Your task to perform on an android device: Search for Mexican restaurants on Maps Image 0: 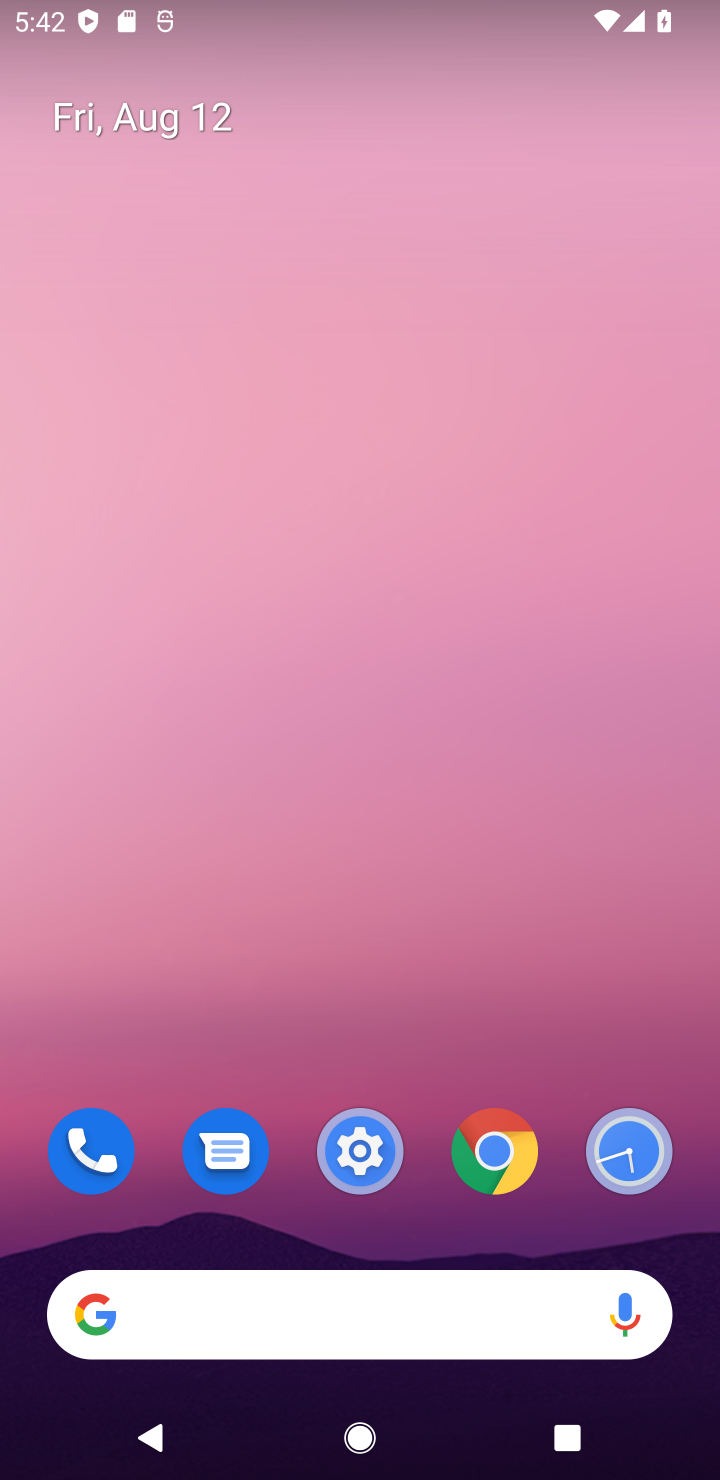
Step 0: drag from (562, 972) to (565, 40)
Your task to perform on an android device: Search for Mexican restaurants on Maps Image 1: 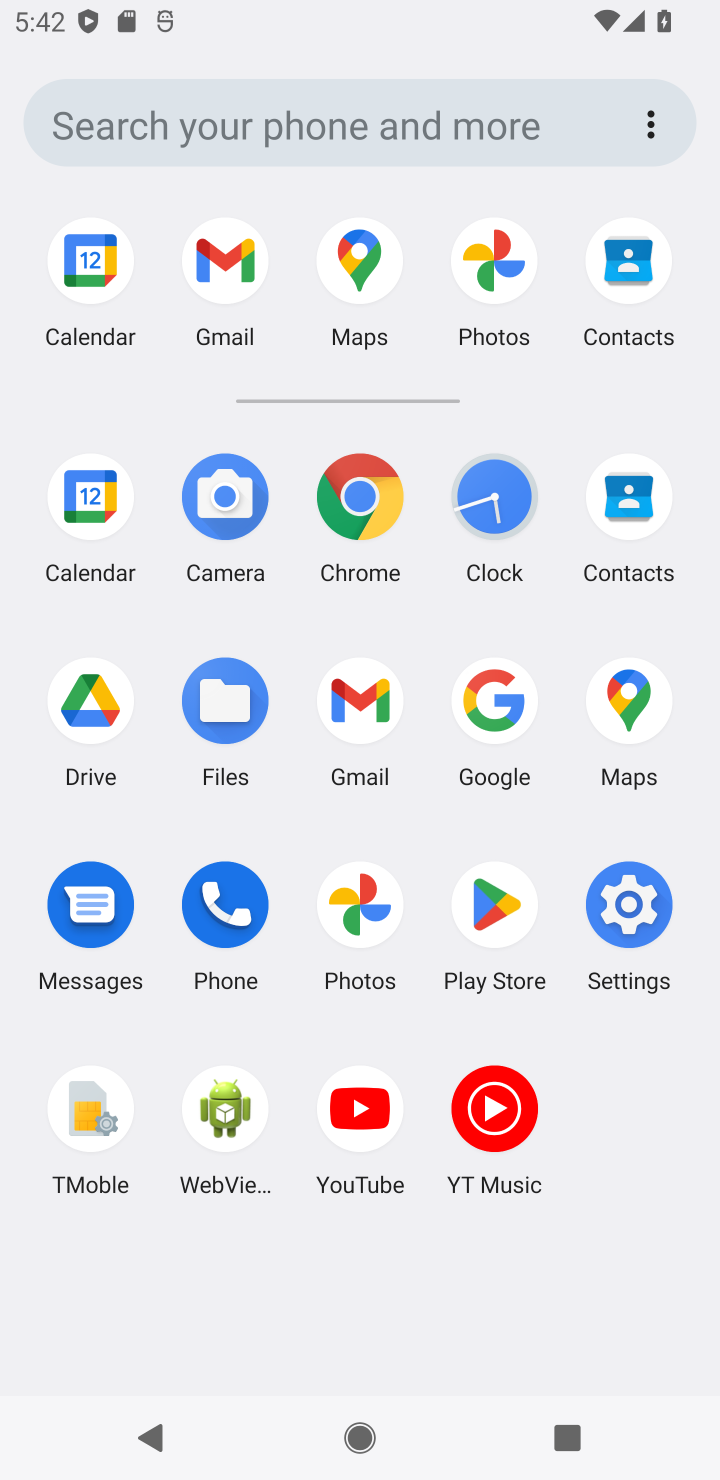
Step 1: click (616, 694)
Your task to perform on an android device: Search for Mexican restaurants on Maps Image 2: 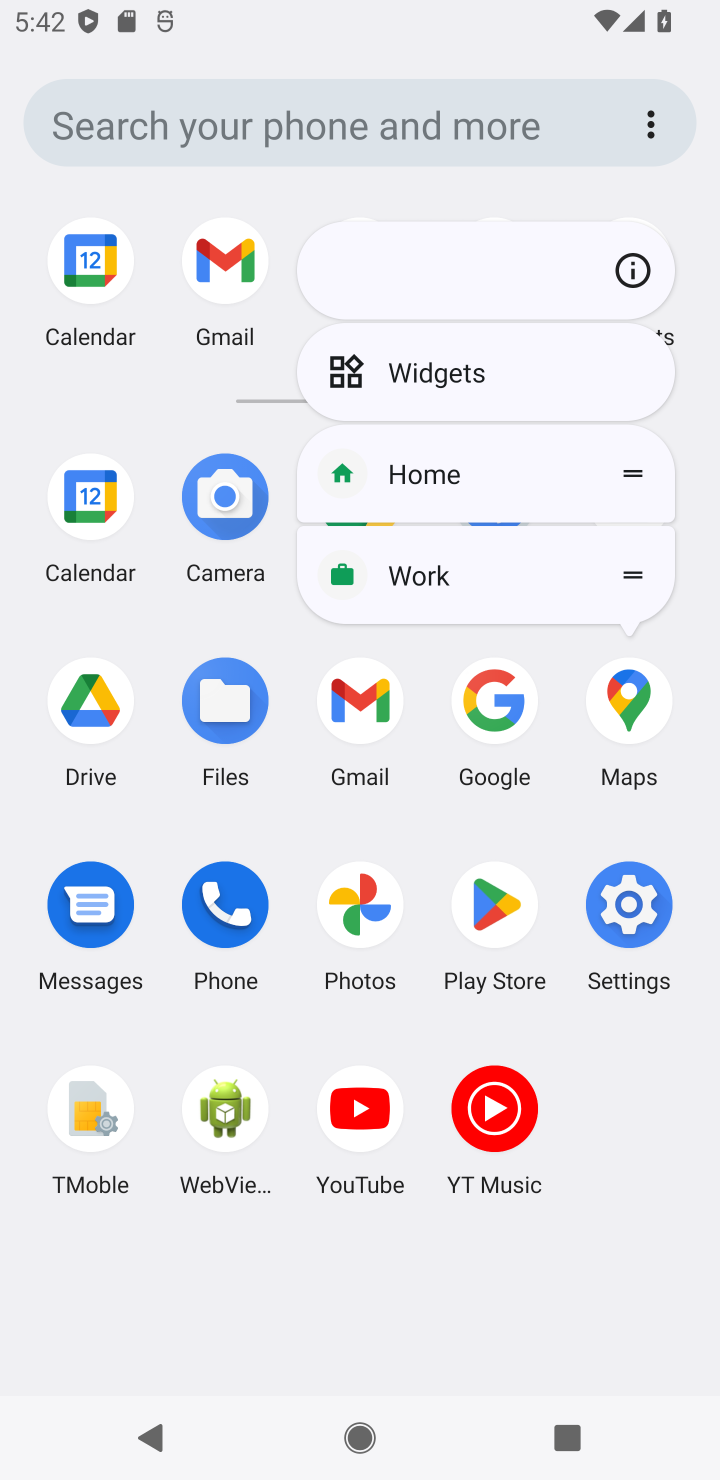
Step 2: click (616, 694)
Your task to perform on an android device: Search for Mexican restaurants on Maps Image 3: 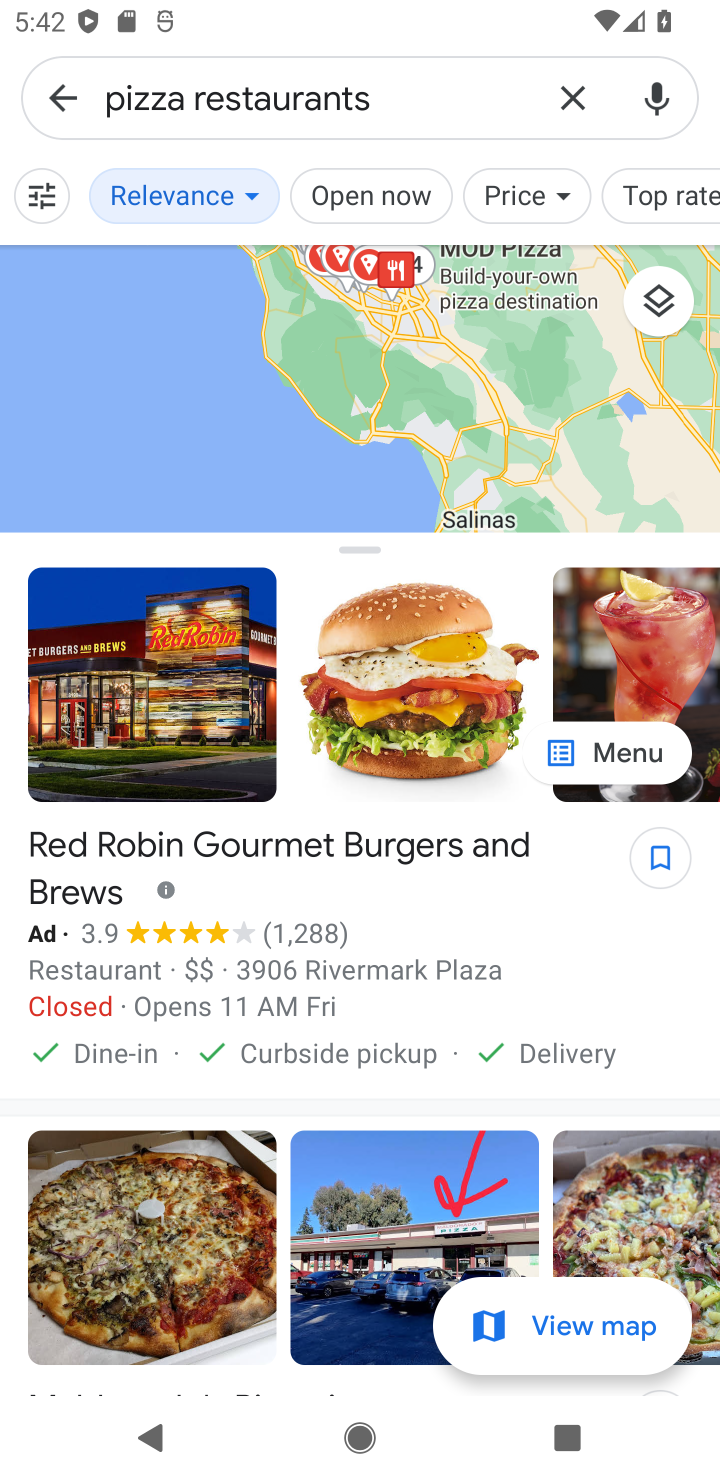
Step 3: click (592, 84)
Your task to perform on an android device: Search for Mexican restaurants on Maps Image 4: 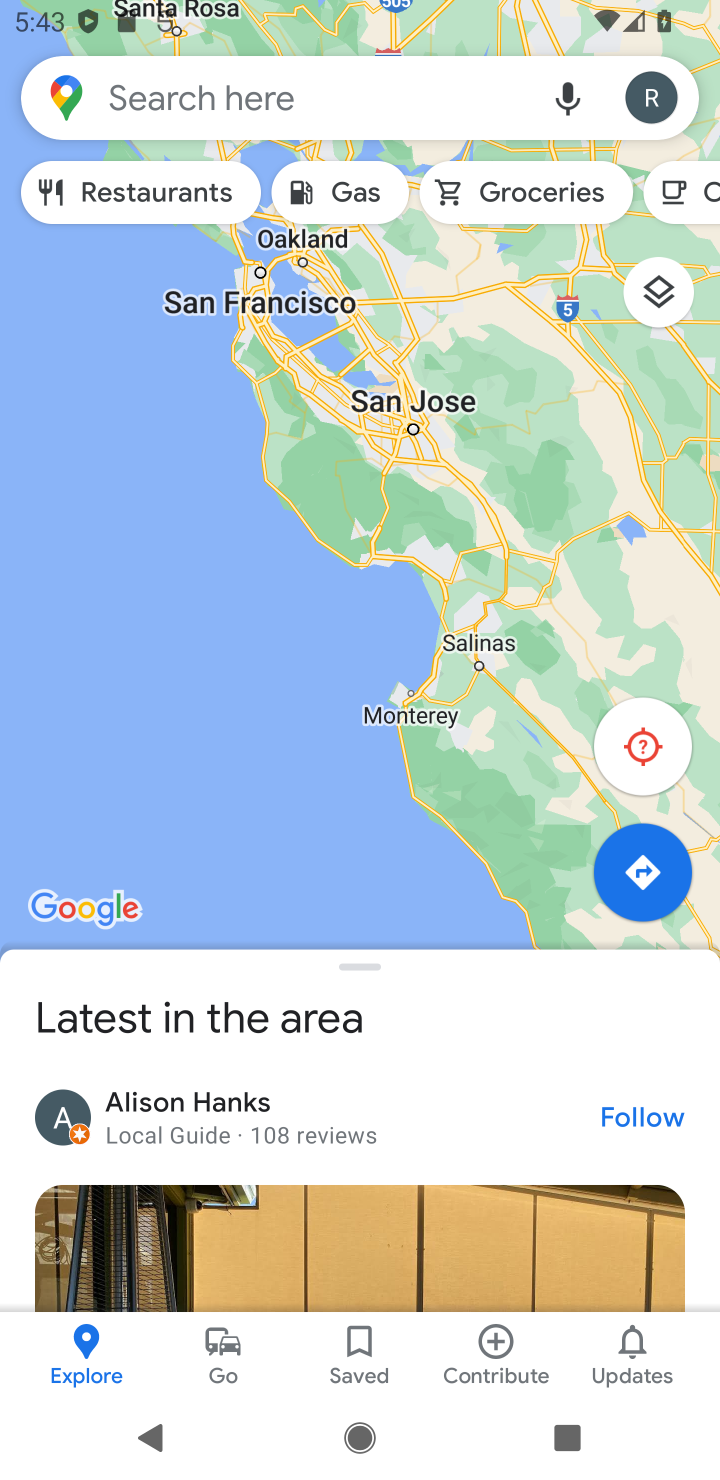
Step 4: click (479, 83)
Your task to perform on an android device: Search for Mexican restaurants on Maps Image 5: 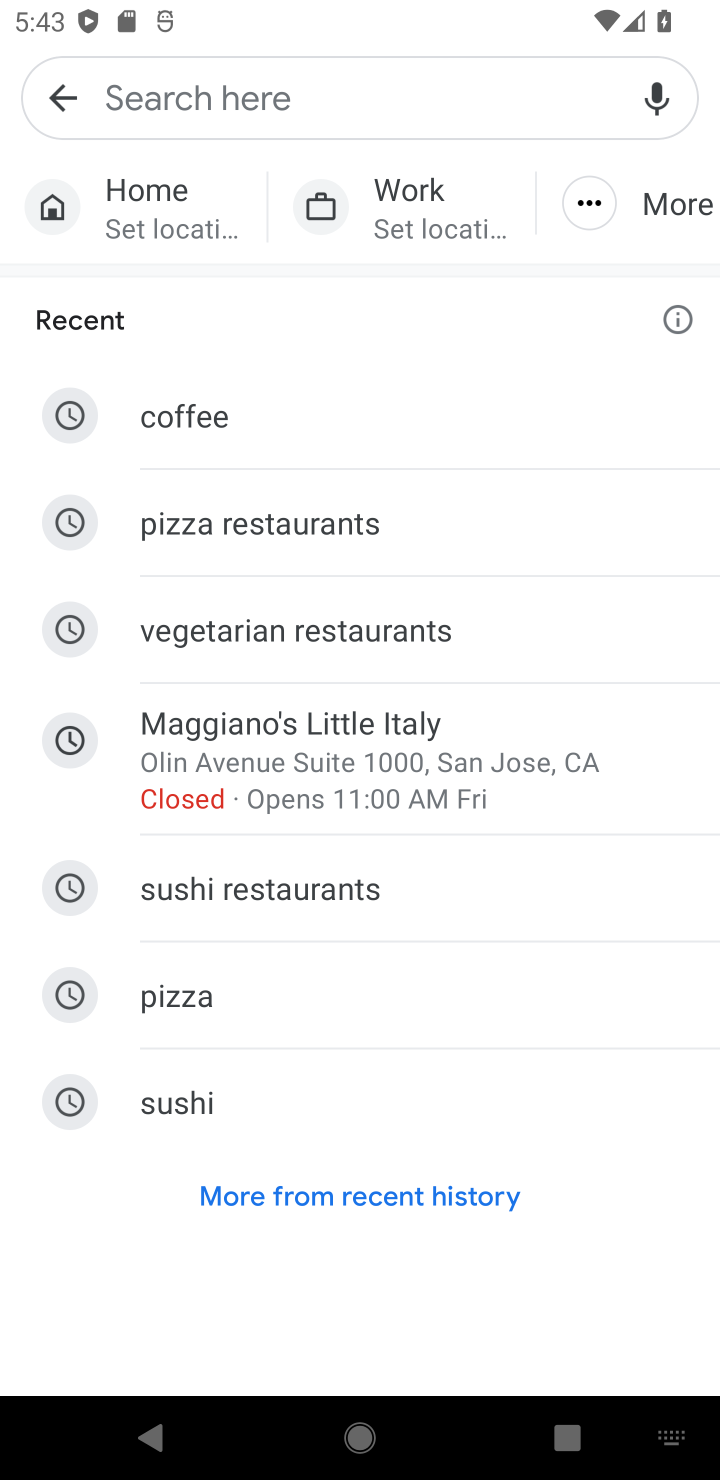
Step 5: type "Mexican reststaurants"
Your task to perform on an android device: Search for Mexican restaurants on Maps Image 6: 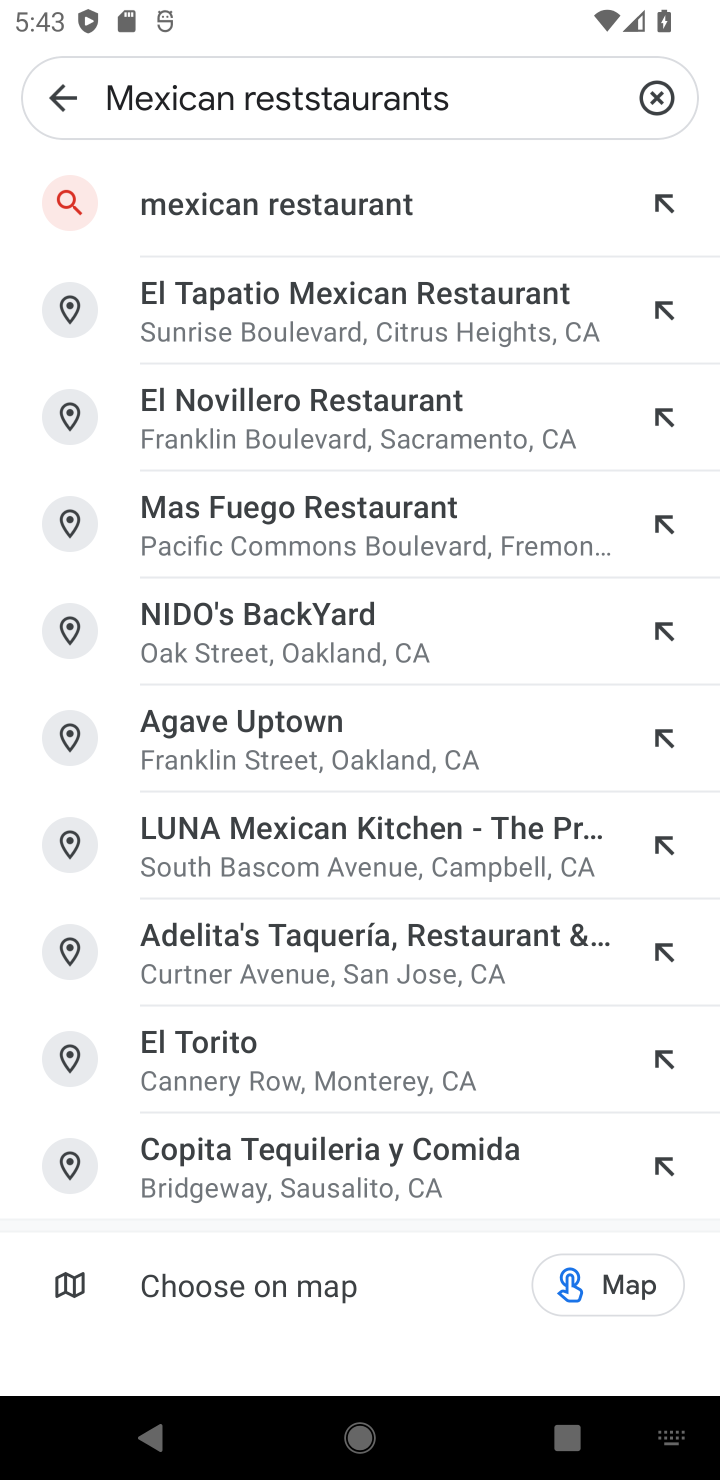
Step 6: press enter
Your task to perform on an android device: Search for Mexican restaurants on Maps Image 7: 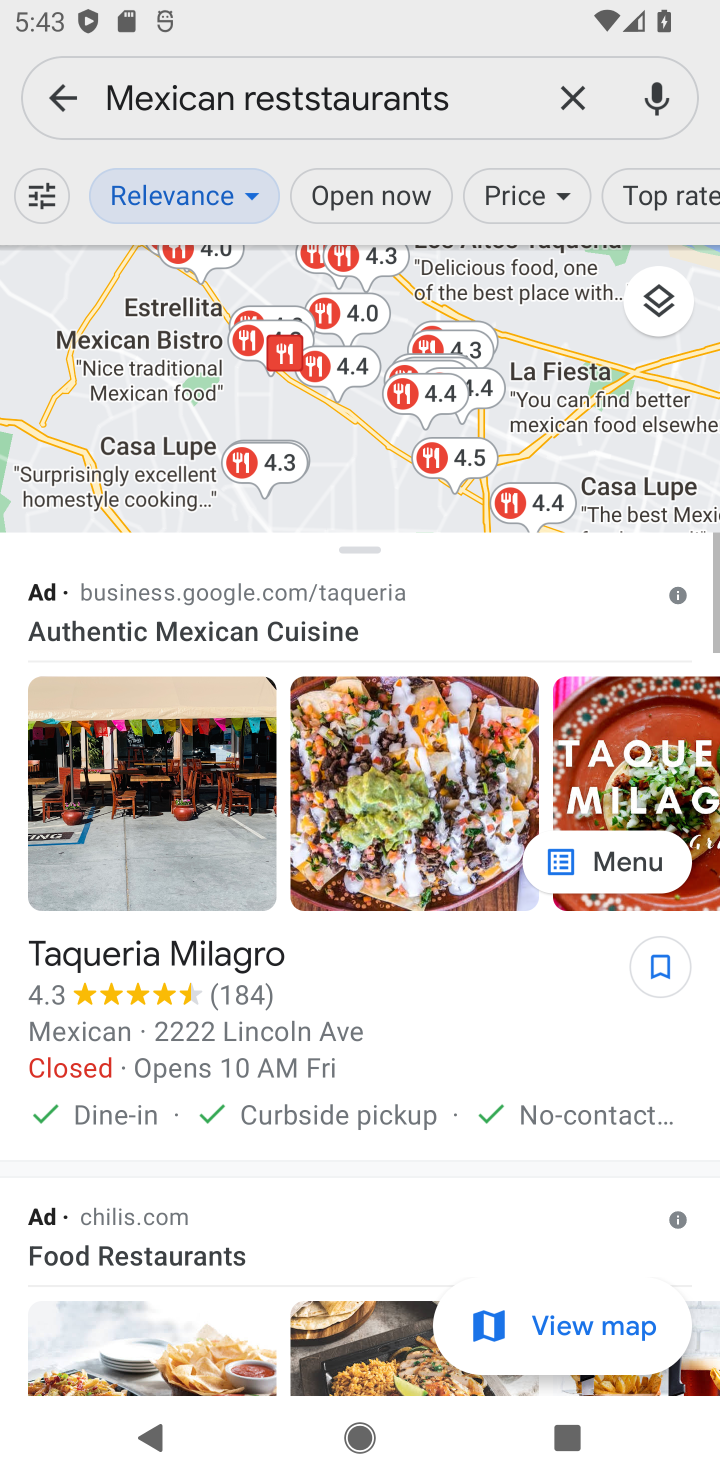
Step 7: task complete